Your task to perform on an android device: change notification settings in the gmail app Image 0: 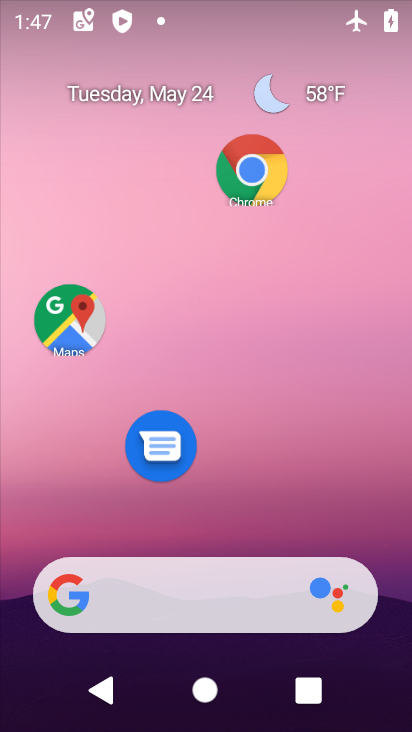
Step 0: drag from (240, 545) to (231, 220)
Your task to perform on an android device: change notification settings in the gmail app Image 1: 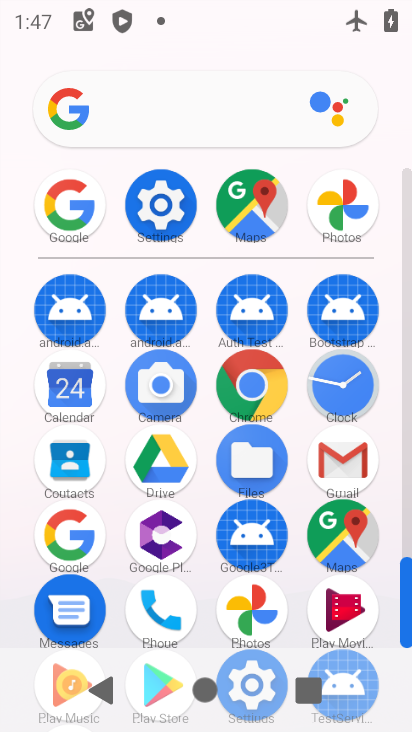
Step 1: click (346, 472)
Your task to perform on an android device: change notification settings in the gmail app Image 2: 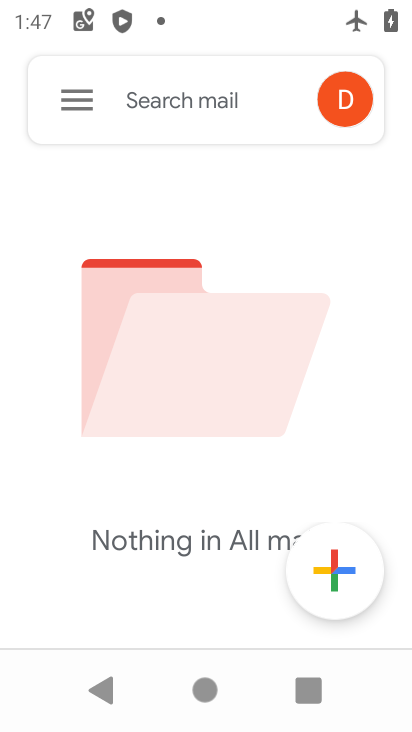
Step 2: click (80, 115)
Your task to perform on an android device: change notification settings in the gmail app Image 3: 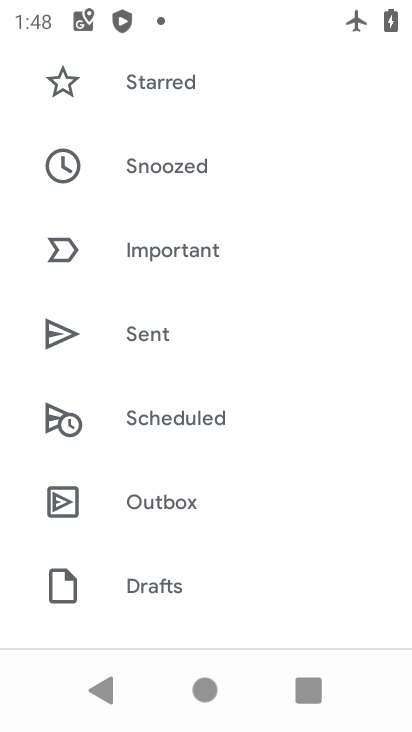
Step 3: drag from (186, 496) to (122, 24)
Your task to perform on an android device: change notification settings in the gmail app Image 4: 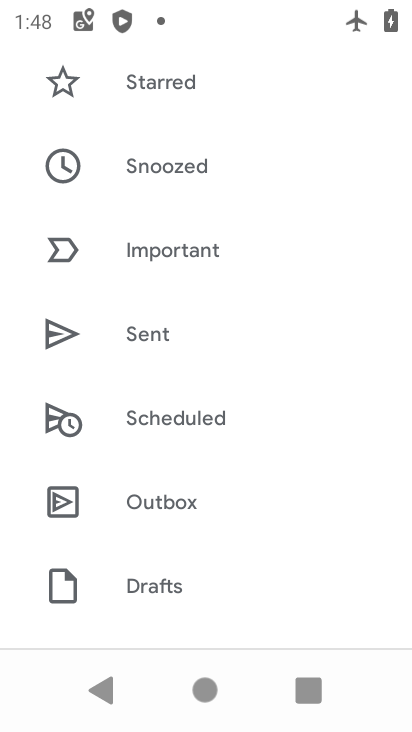
Step 4: drag from (158, 564) to (152, 222)
Your task to perform on an android device: change notification settings in the gmail app Image 5: 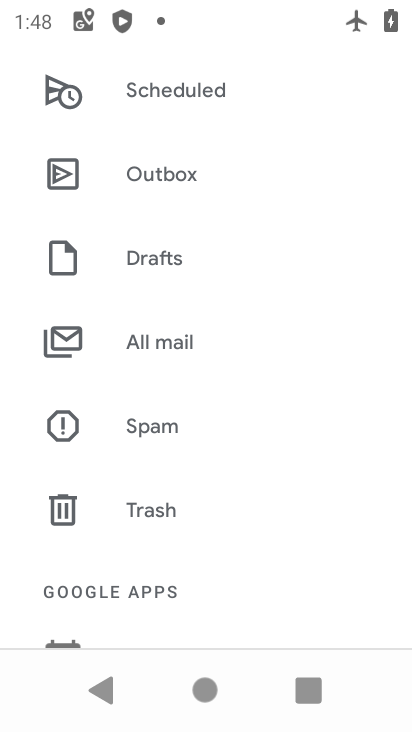
Step 5: drag from (194, 529) to (216, 138)
Your task to perform on an android device: change notification settings in the gmail app Image 6: 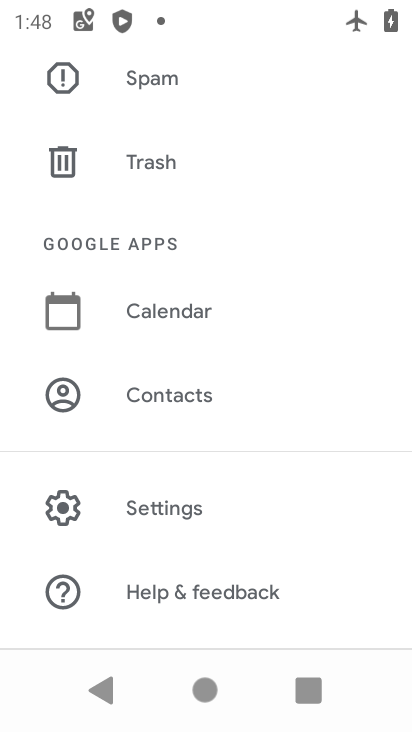
Step 6: click (179, 505)
Your task to perform on an android device: change notification settings in the gmail app Image 7: 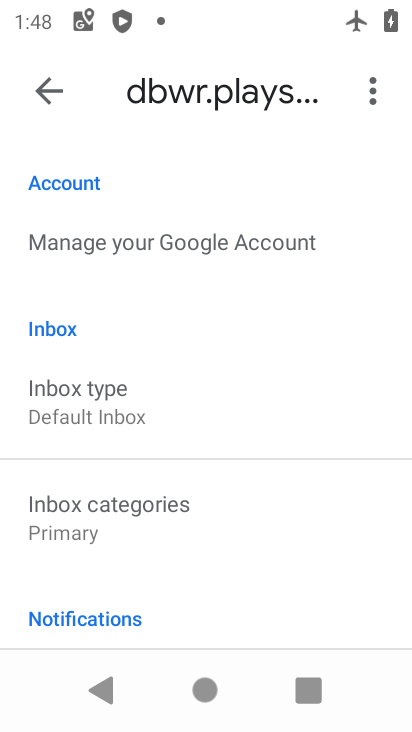
Step 7: drag from (223, 517) to (214, 254)
Your task to perform on an android device: change notification settings in the gmail app Image 8: 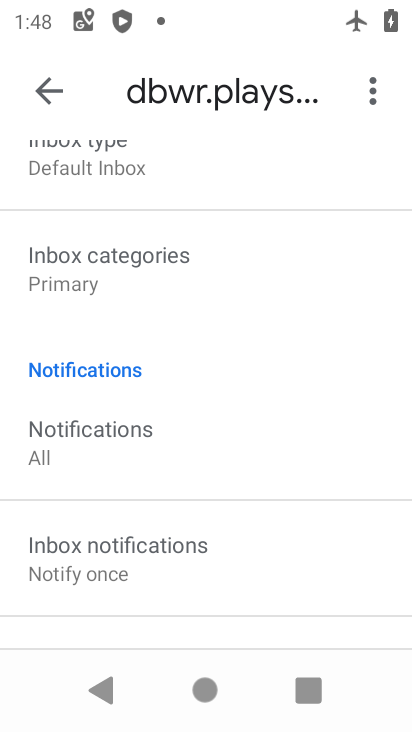
Step 8: drag from (137, 255) to (148, 363)
Your task to perform on an android device: change notification settings in the gmail app Image 9: 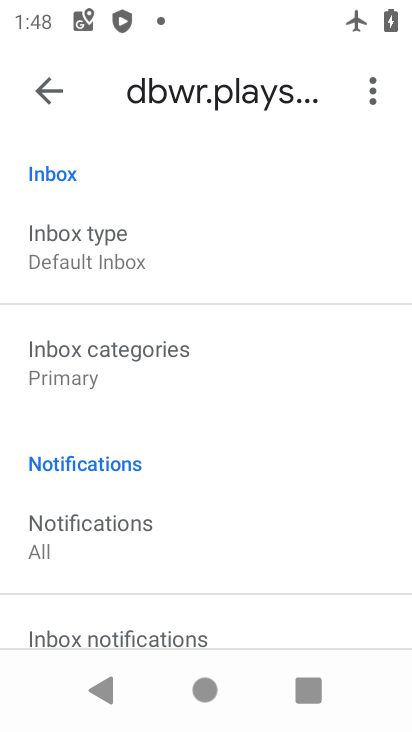
Step 9: click (53, 104)
Your task to perform on an android device: change notification settings in the gmail app Image 10: 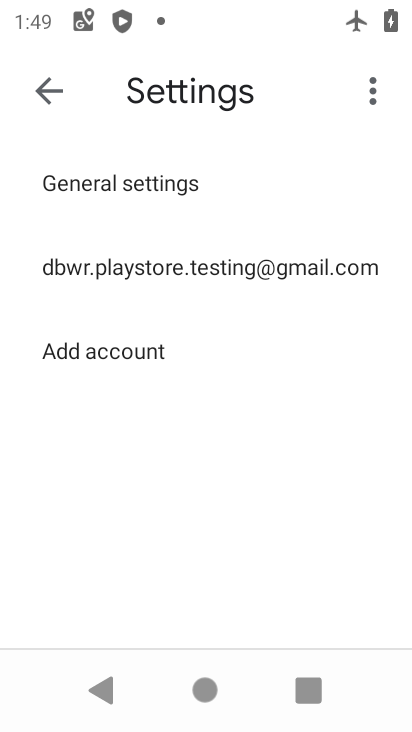
Step 10: click (143, 185)
Your task to perform on an android device: change notification settings in the gmail app Image 11: 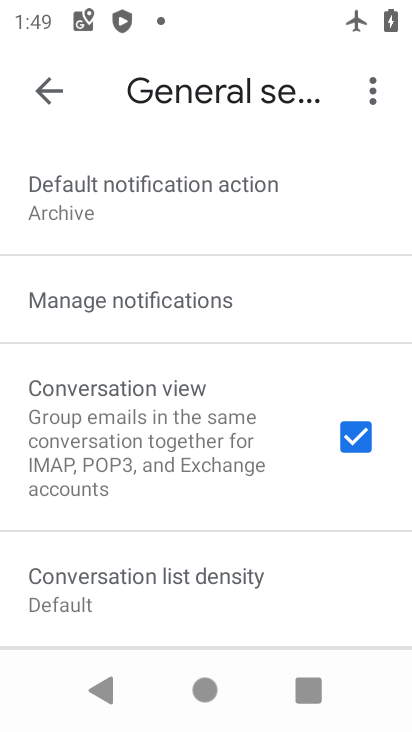
Step 11: click (218, 314)
Your task to perform on an android device: change notification settings in the gmail app Image 12: 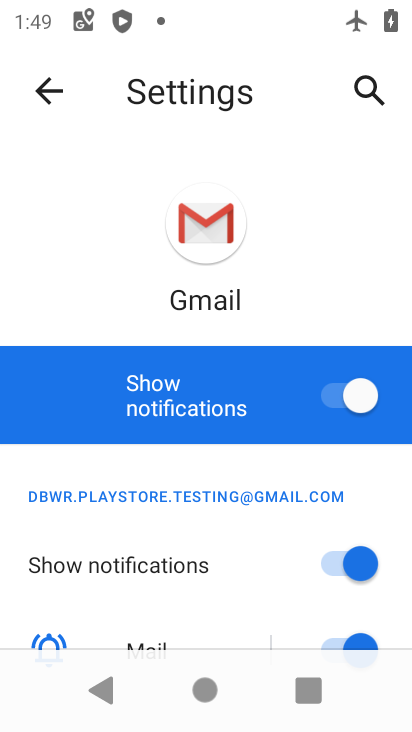
Step 12: click (337, 410)
Your task to perform on an android device: change notification settings in the gmail app Image 13: 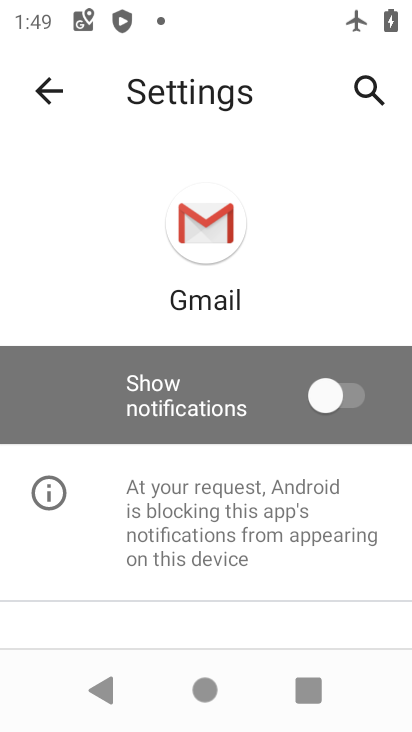
Step 13: task complete